Your task to perform on an android device: Open Google Chrome and click the shortcut for Amazon.com Image 0: 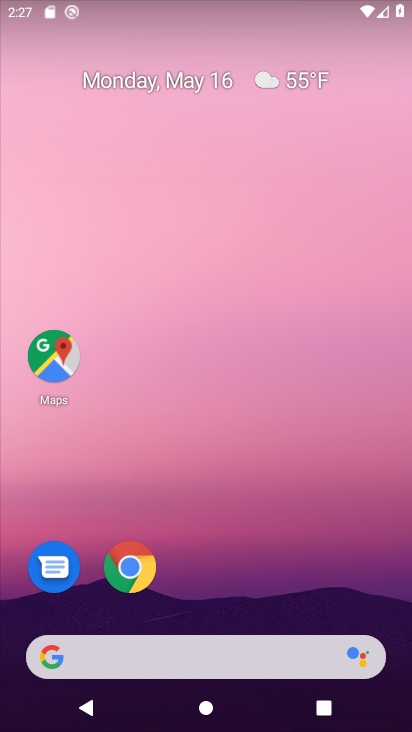
Step 0: click (139, 557)
Your task to perform on an android device: Open Google Chrome and click the shortcut for Amazon.com Image 1: 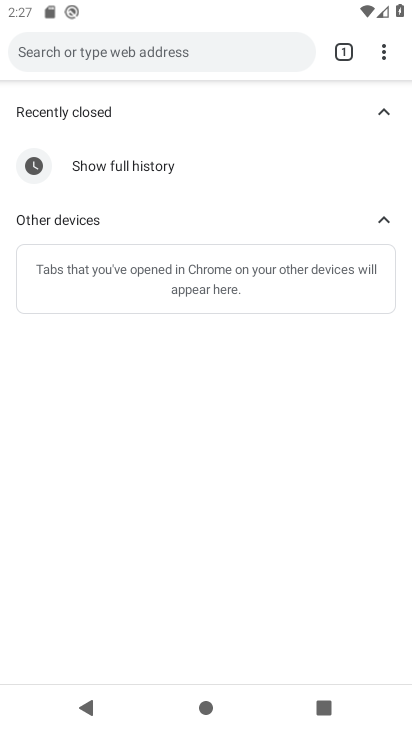
Step 1: click (342, 47)
Your task to perform on an android device: Open Google Chrome and click the shortcut for Amazon.com Image 2: 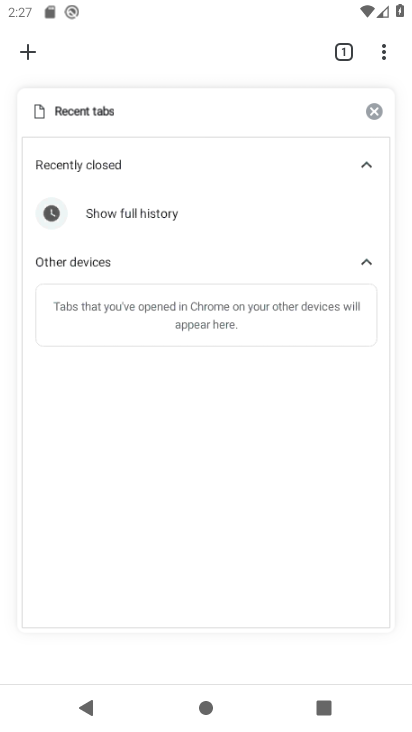
Step 2: click (377, 107)
Your task to perform on an android device: Open Google Chrome and click the shortcut for Amazon.com Image 3: 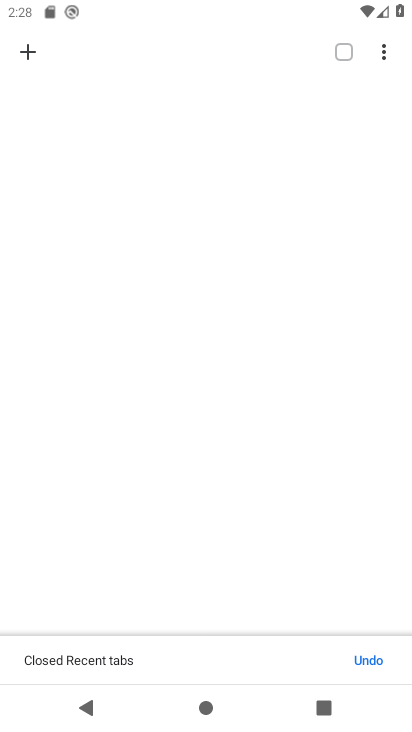
Step 3: click (21, 46)
Your task to perform on an android device: Open Google Chrome and click the shortcut for Amazon.com Image 4: 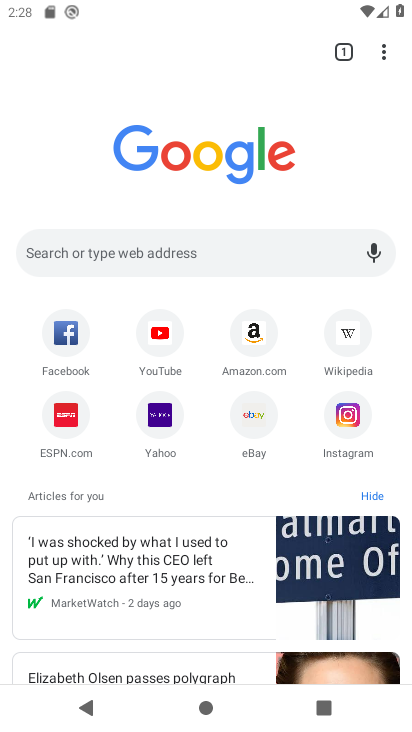
Step 4: click (254, 343)
Your task to perform on an android device: Open Google Chrome and click the shortcut for Amazon.com Image 5: 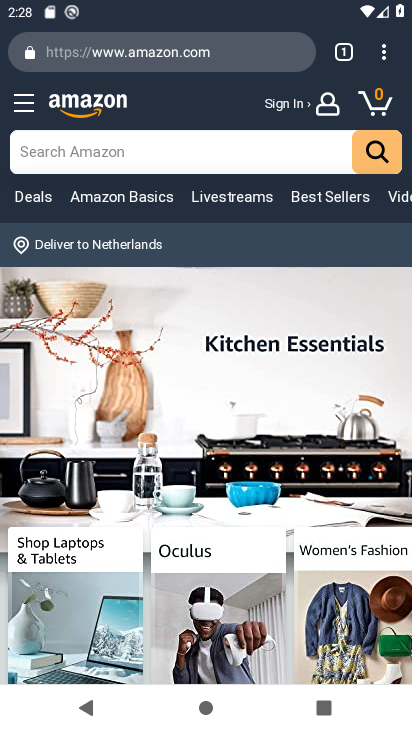
Step 5: task complete